Your task to perform on an android device: allow cookies in the chrome app Image 0: 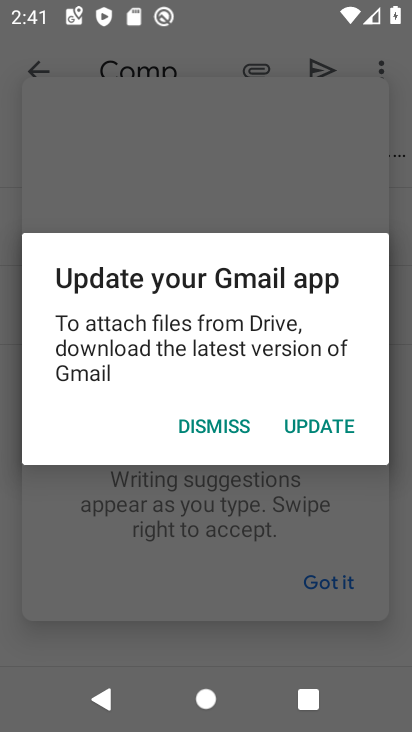
Step 0: press home button
Your task to perform on an android device: allow cookies in the chrome app Image 1: 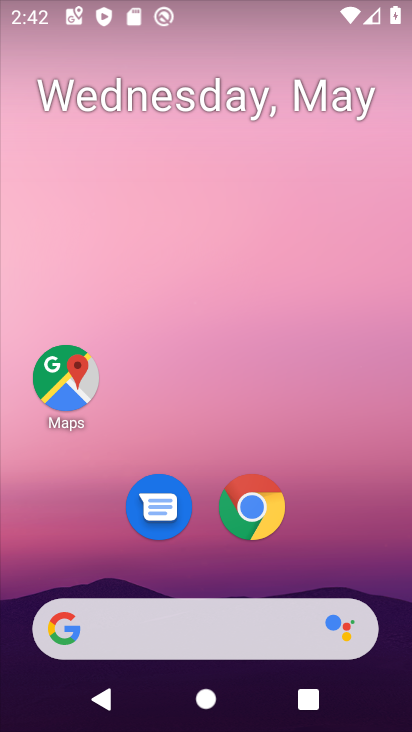
Step 1: click (254, 499)
Your task to perform on an android device: allow cookies in the chrome app Image 2: 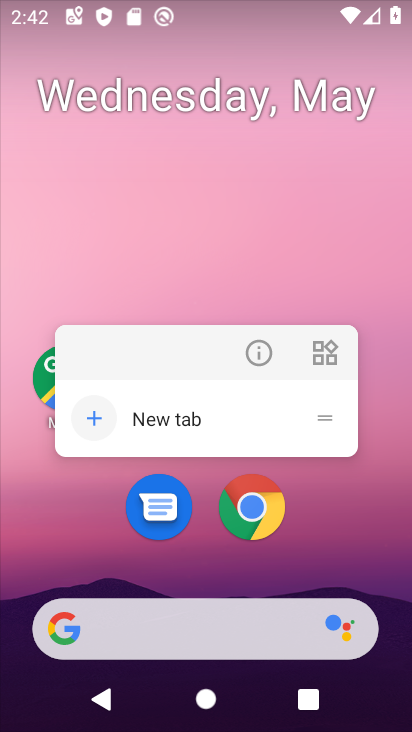
Step 2: click (258, 502)
Your task to perform on an android device: allow cookies in the chrome app Image 3: 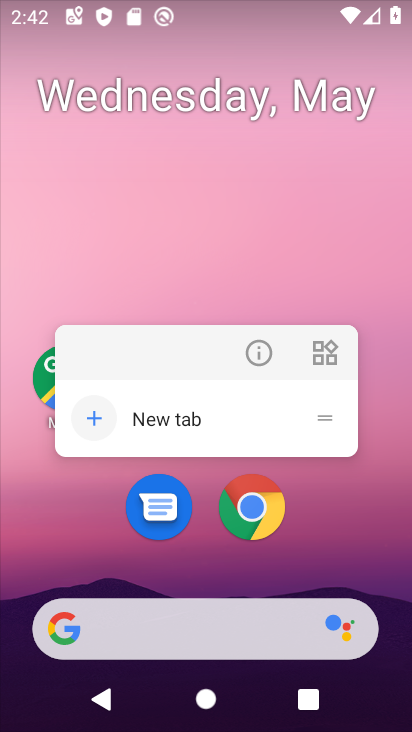
Step 3: click (258, 503)
Your task to perform on an android device: allow cookies in the chrome app Image 4: 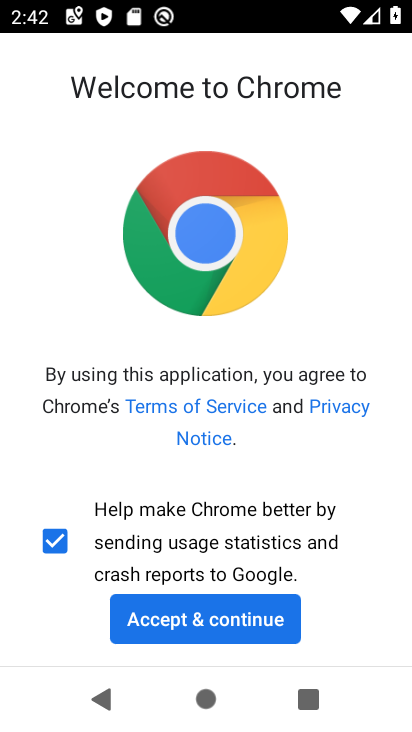
Step 4: click (191, 618)
Your task to perform on an android device: allow cookies in the chrome app Image 5: 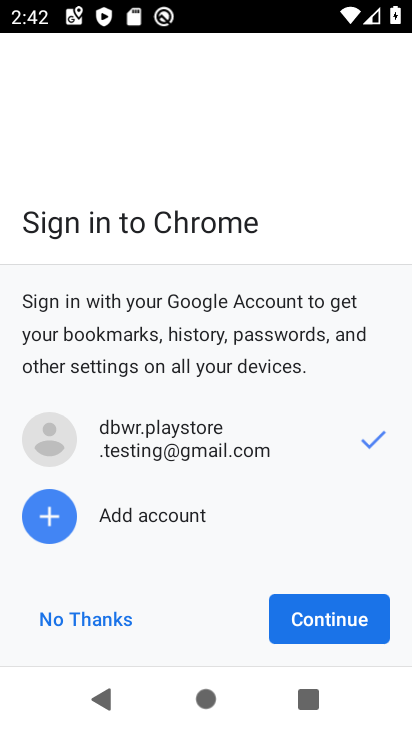
Step 5: click (299, 616)
Your task to perform on an android device: allow cookies in the chrome app Image 6: 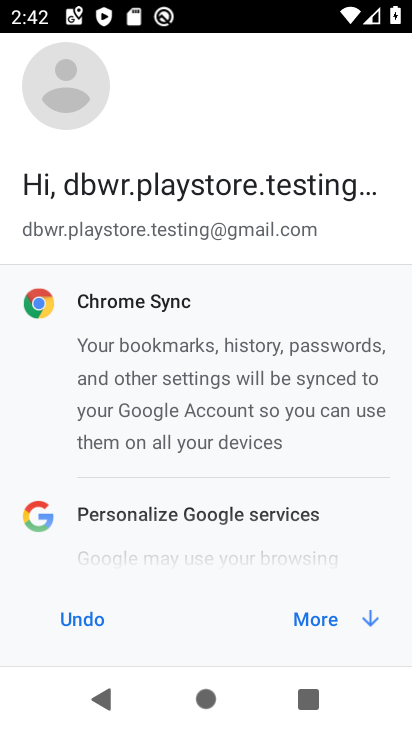
Step 6: click (337, 610)
Your task to perform on an android device: allow cookies in the chrome app Image 7: 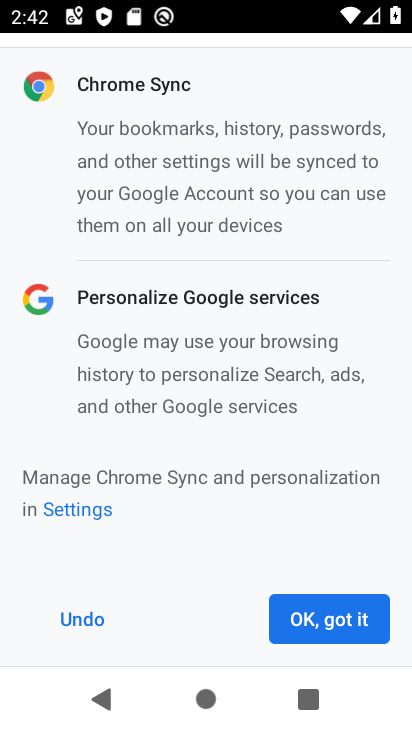
Step 7: click (340, 614)
Your task to perform on an android device: allow cookies in the chrome app Image 8: 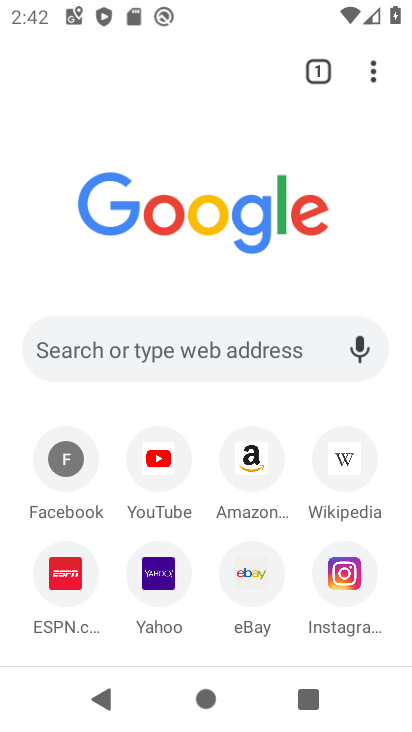
Step 8: click (381, 76)
Your task to perform on an android device: allow cookies in the chrome app Image 9: 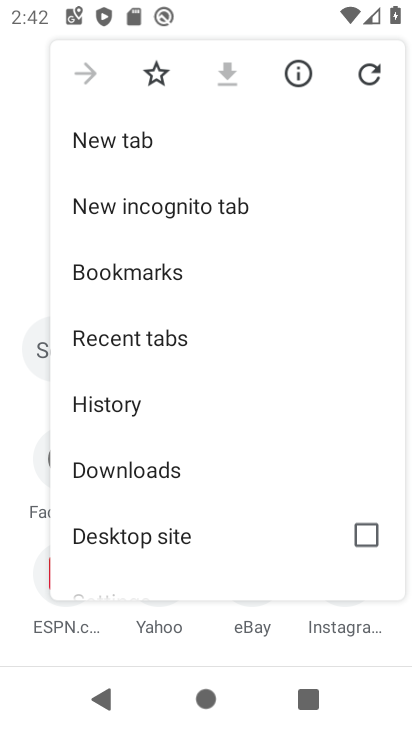
Step 9: drag from (133, 437) to (160, 171)
Your task to perform on an android device: allow cookies in the chrome app Image 10: 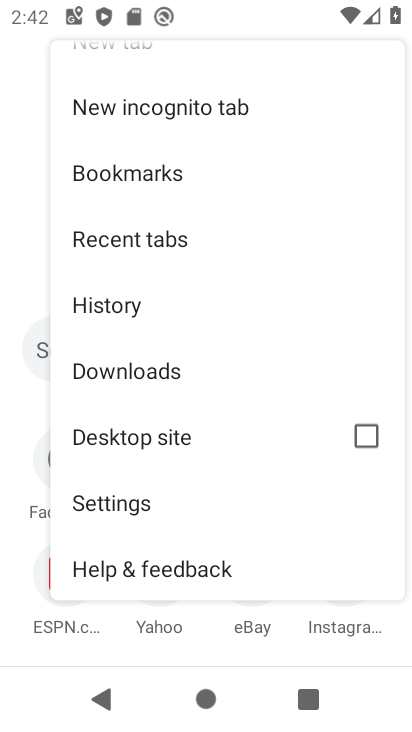
Step 10: click (127, 502)
Your task to perform on an android device: allow cookies in the chrome app Image 11: 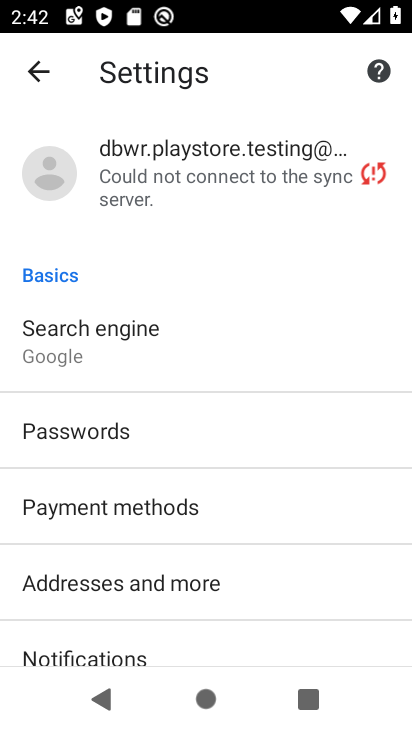
Step 11: drag from (184, 542) to (222, 275)
Your task to perform on an android device: allow cookies in the chrome app Image 12: 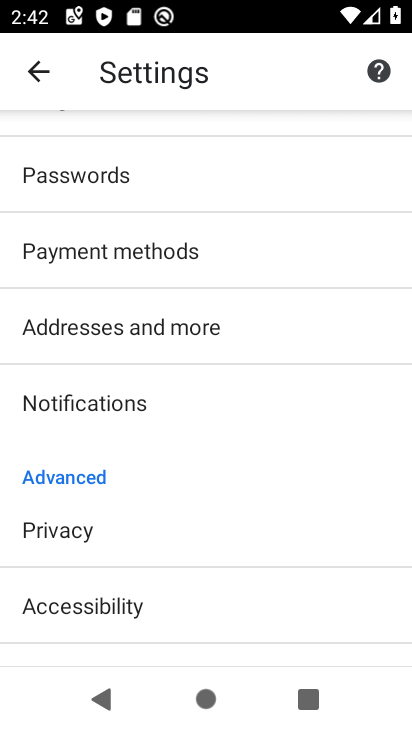
Step 12: drag from (183, 488) to (200, 136)
Your task to perform on an android device: allow cookies in the chrome app Image 13: 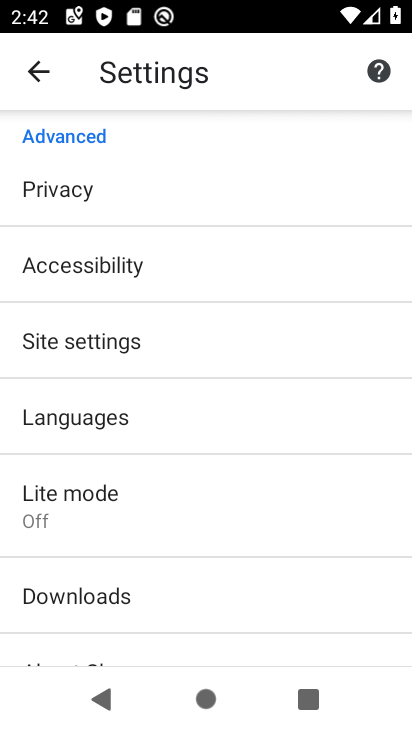
Step 13: drag from (117, 524) to (152, 293)
Your task to perform on an android device: allow cookies in the chrome app Image 14: 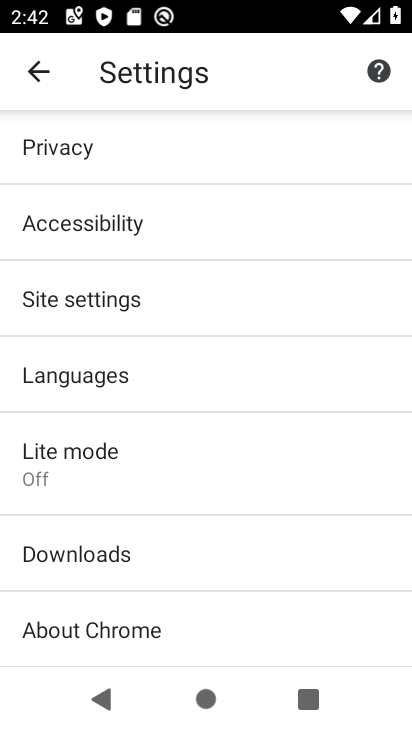
Step 14: click (131, 302)
Your task to perform on an android device: allow cookies in the chrome app Image 15: 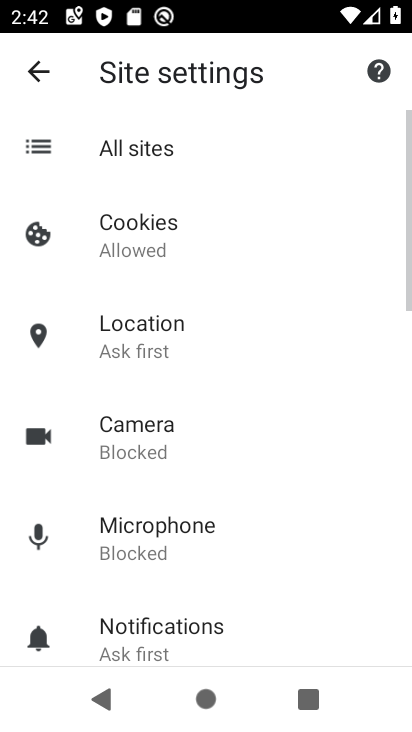
Step 15: click (159, 250)
Your task to perform on an android device: allow cookies in the chrome app Image 16: 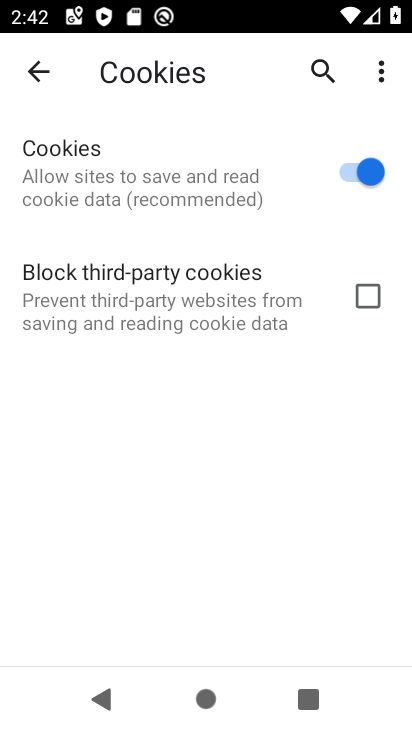
Step 16: task complete